Your task to perform on an android device: Open Amazon Image 0: 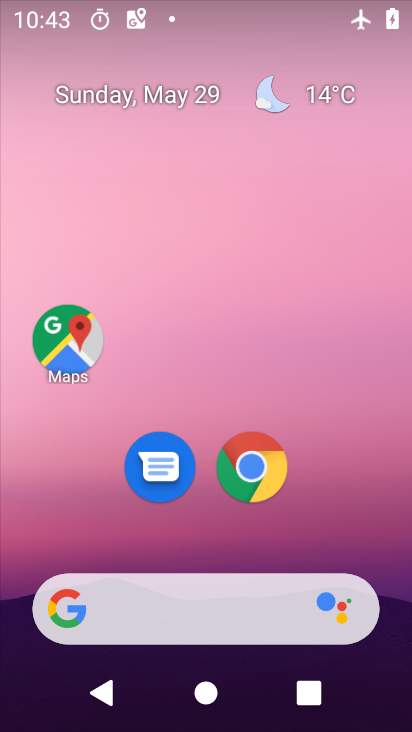
Step 0: click (240, 481)
Your task to perform on an android device: Open Amazon Image 1: 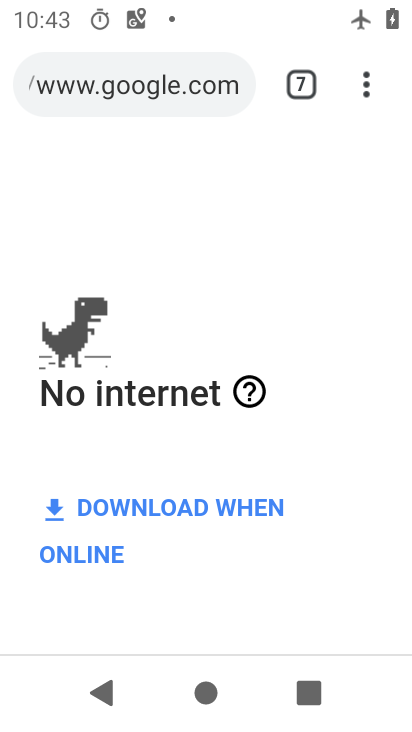
Step 1: click (299, 88)
Your task to perform on an android device: Open Amazon Image 2: 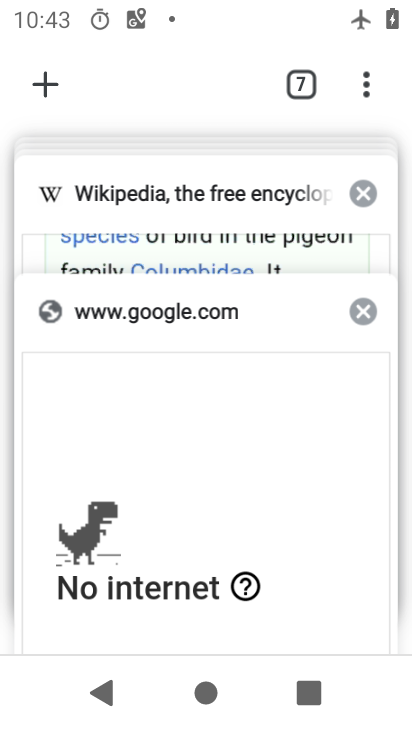
Step 2: drag from (171, 245) to (189, 439)
Your task to perform on an android device: Open Amazon Image 3: 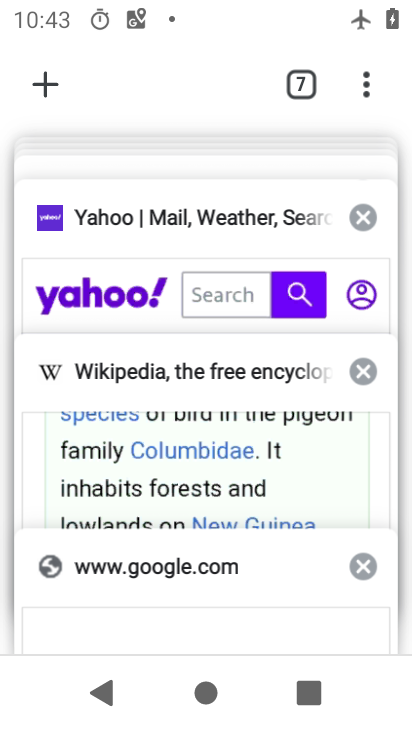
Step 3: drag from (168, 246) to (194, 401)
Your task to perform on an android device: Open Amazon Image 4: 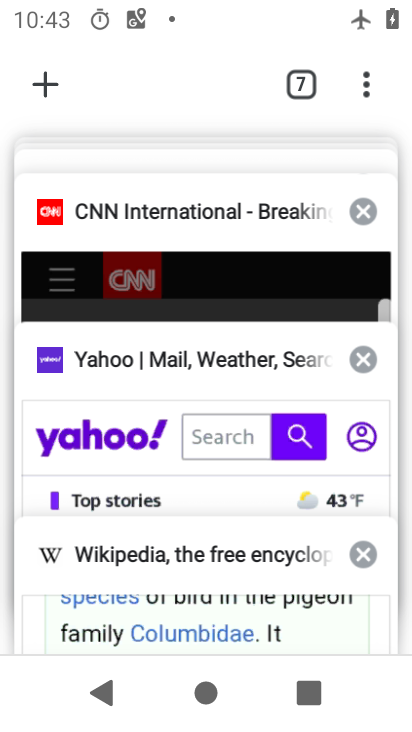
Step 4: drag from (165, 227) to (176, 410)
Your task to perform on an android device: Open Amazon Image 5: 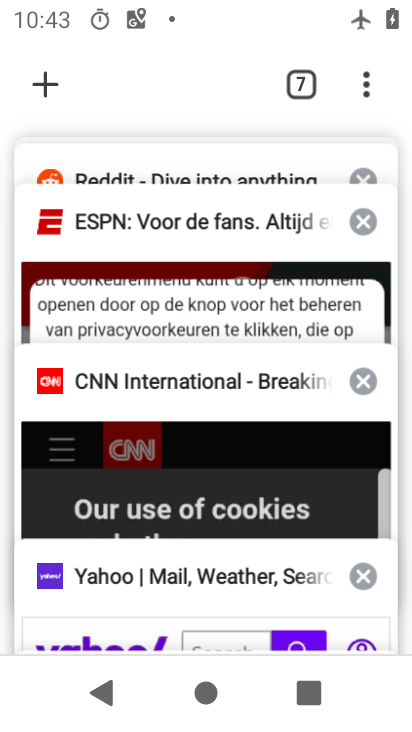
Step 5: drag from (158, 267) to (181, 398)
Your task to perform on an android device: Open Amazon Image 6: 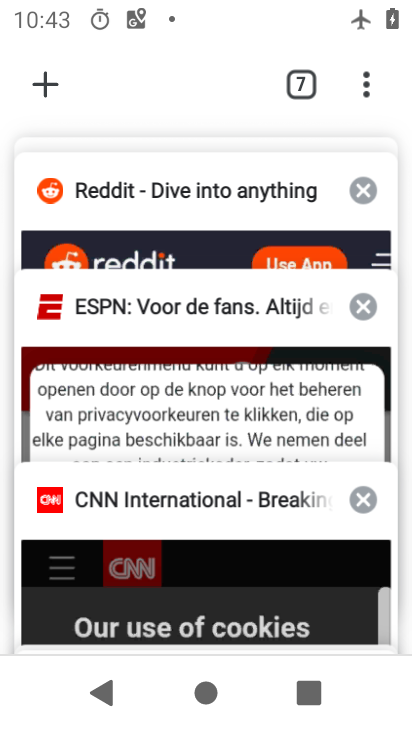
Step 6: drag from (150, 216) to (175, 407)
Your task to perform on an android device: Open Amazon Image 7: 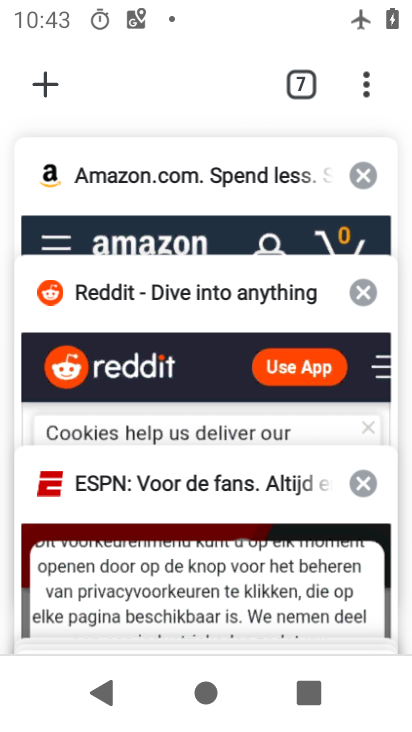
Step 7: drag from (162, 197) to (191, 377)
Your task to perform on an android device: Open Amazon Image 8: 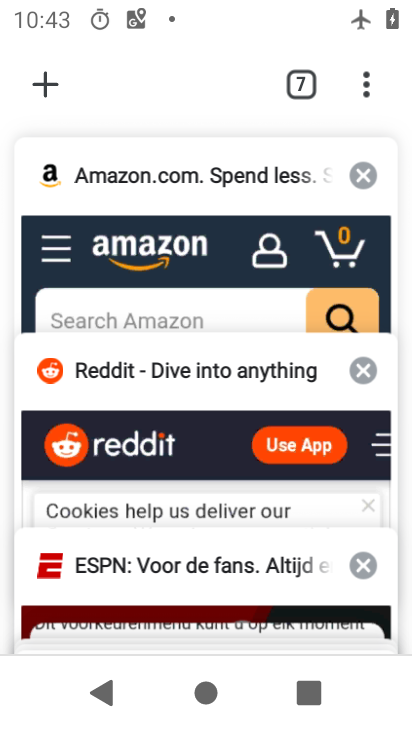
Step 8: drag from (165, 200) to (178, 279)
Your task to perform on an android device: Open Amazon Image 9: 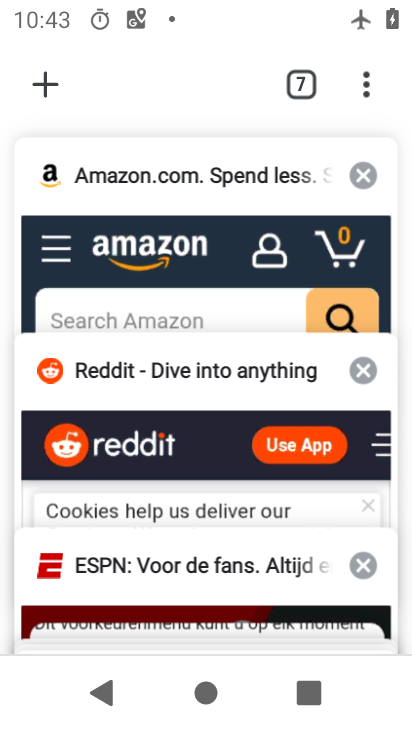
Step 9: click (175, 273)
Your task to perform on an android device: Open Amazon Image 10: 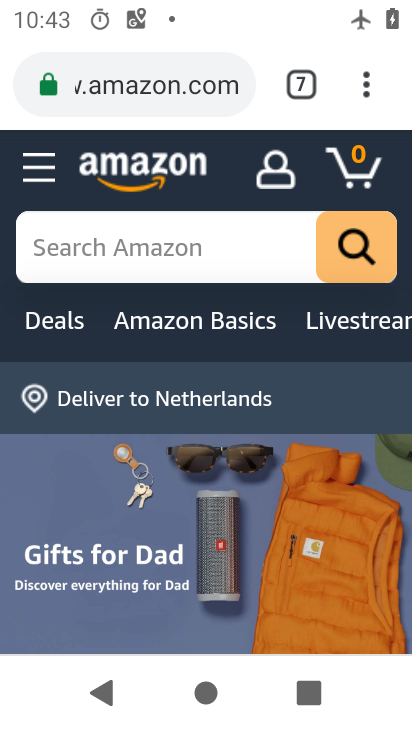
Step 10: task complete